Your task to perform on an android device: open app "Indeed Job Search" (install if not already installed) Image 0: 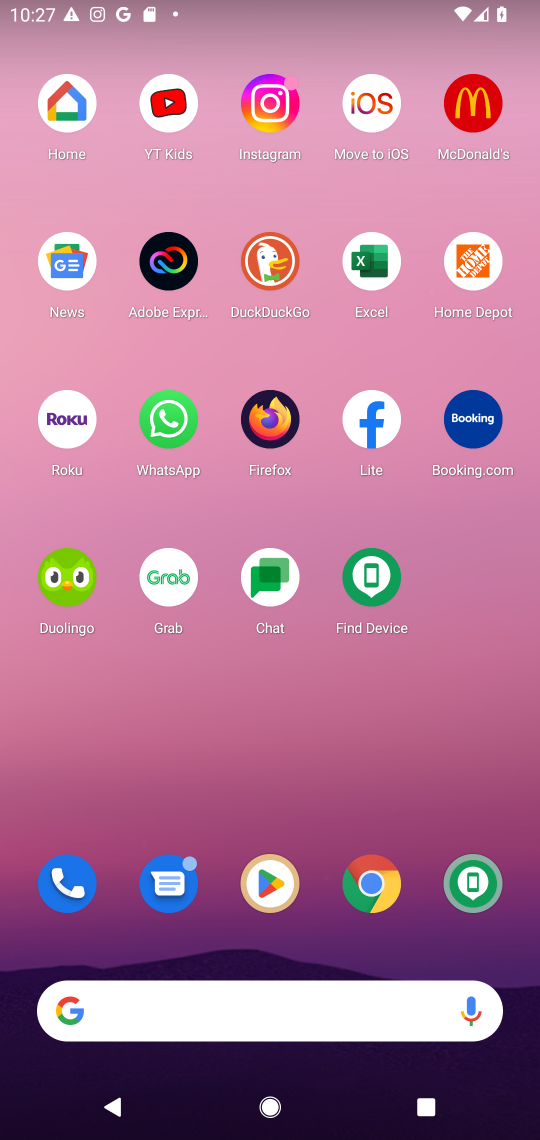
Step 0: press home button
Your task to perform on an android device: open app "Indeed Job Search" (install if not already installed) Image 1: 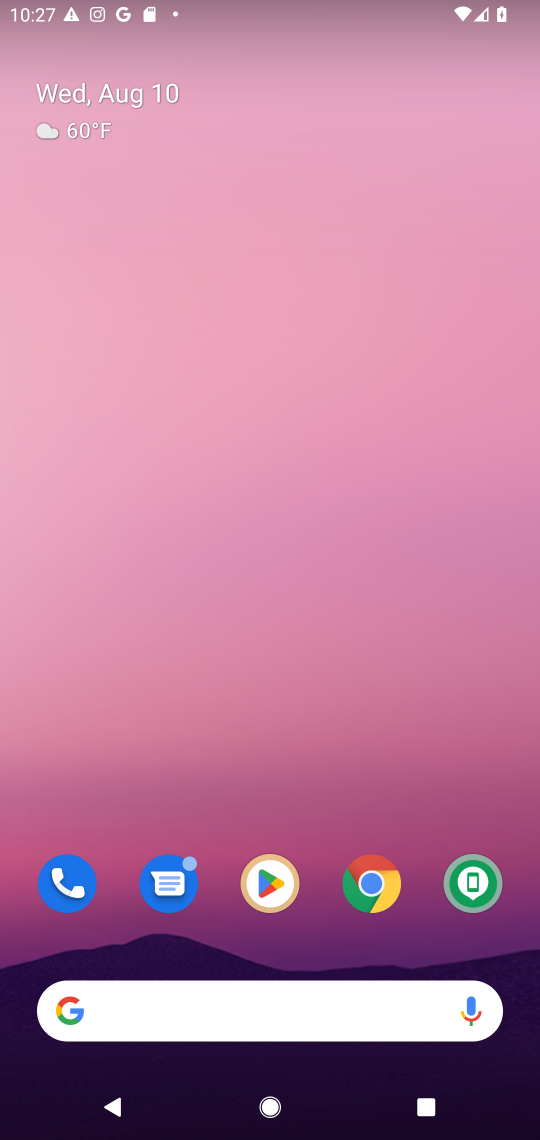
Step 1: drag from (431, 806) to (416, 2)
Your task to perform on an android device: open app "Indeed Job Search" (install if not already installed) Image 2: 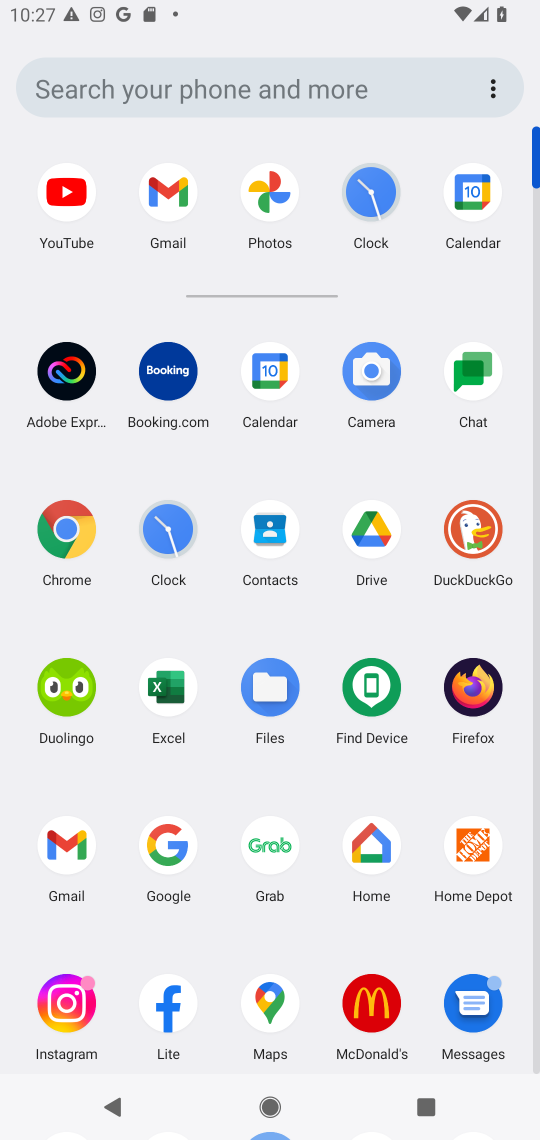
Step 2: drag from (514, 947) to (535, 427)
Your task to perform on an android device: open app "Indeed Job Search" (install if not already installed) Image 3: 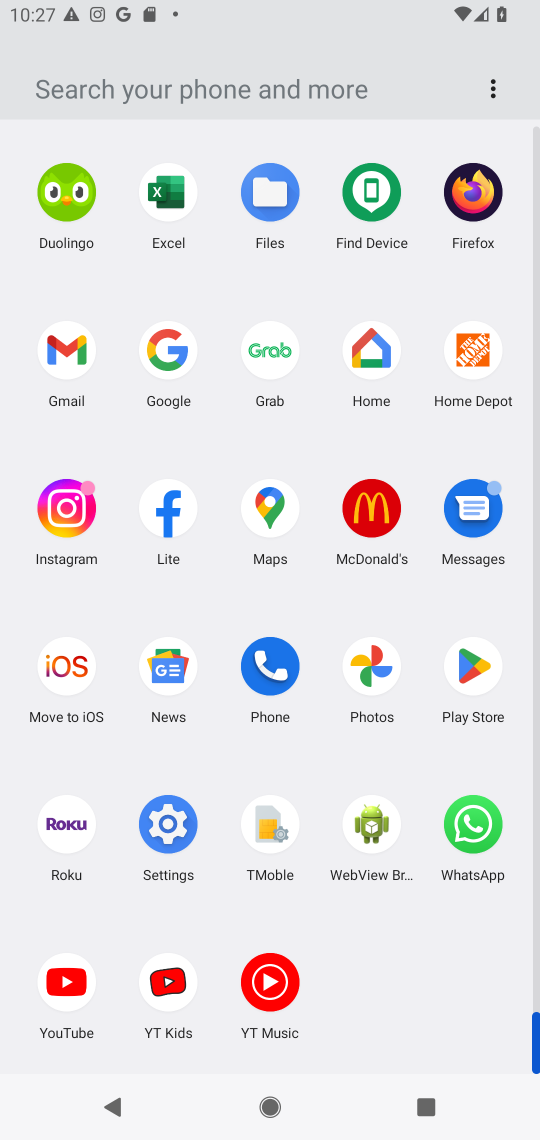
Step 3: click (468, 663)
Your task to perform on an android device: open app "Indeed Job Search" (install if not already installed) Image 4: 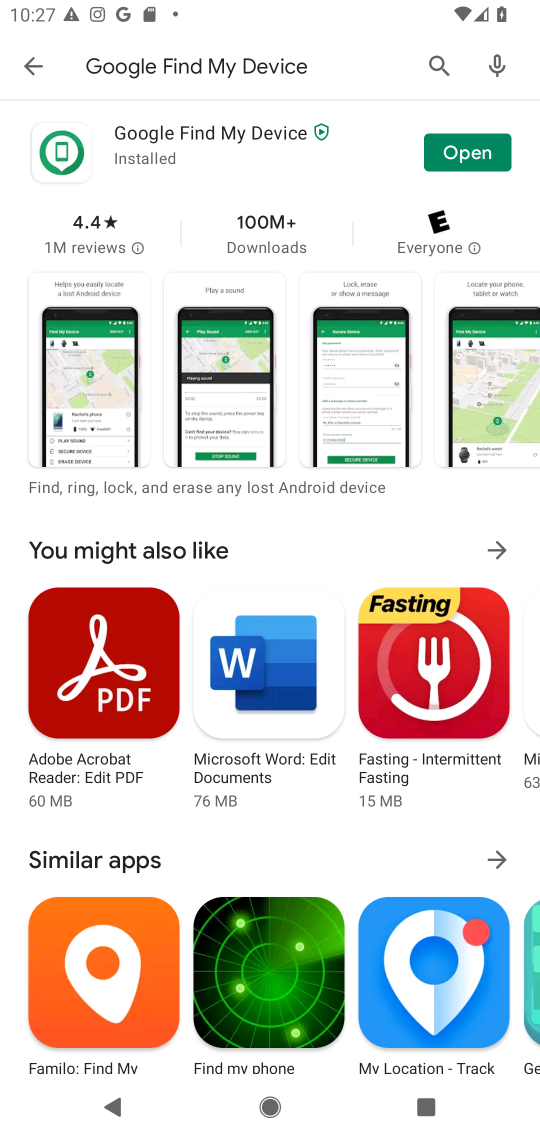
Step 4: click (430, 65)
Your task to perform on an android device: open app "Indeed Job Search" (install if not already installed) Image 5: 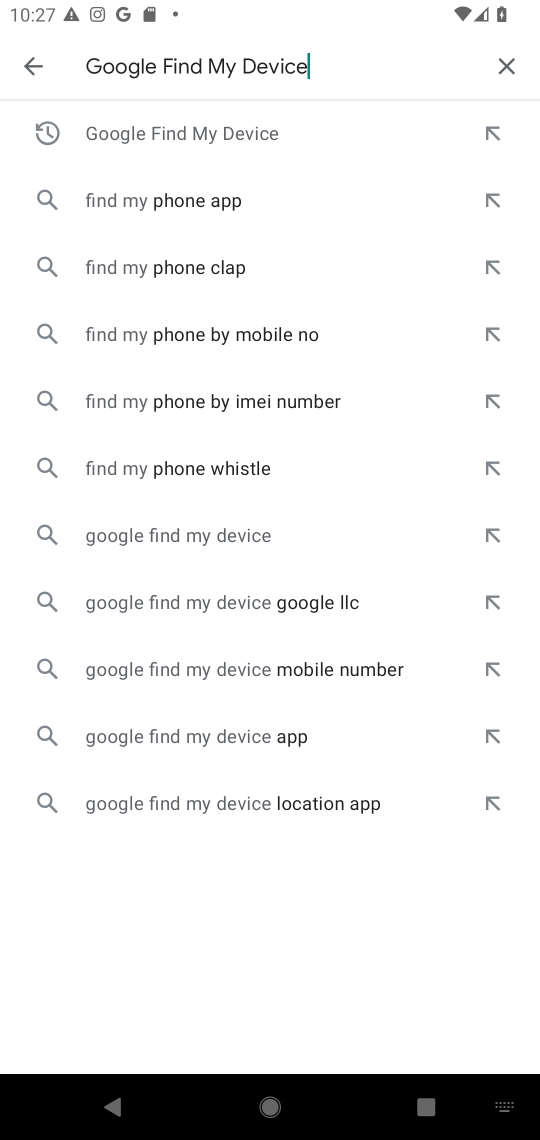
Step 5: click (503, 59)
Your task to perform on an android device: open app "Indeed Job Search" (install if not already installed) Image 6: 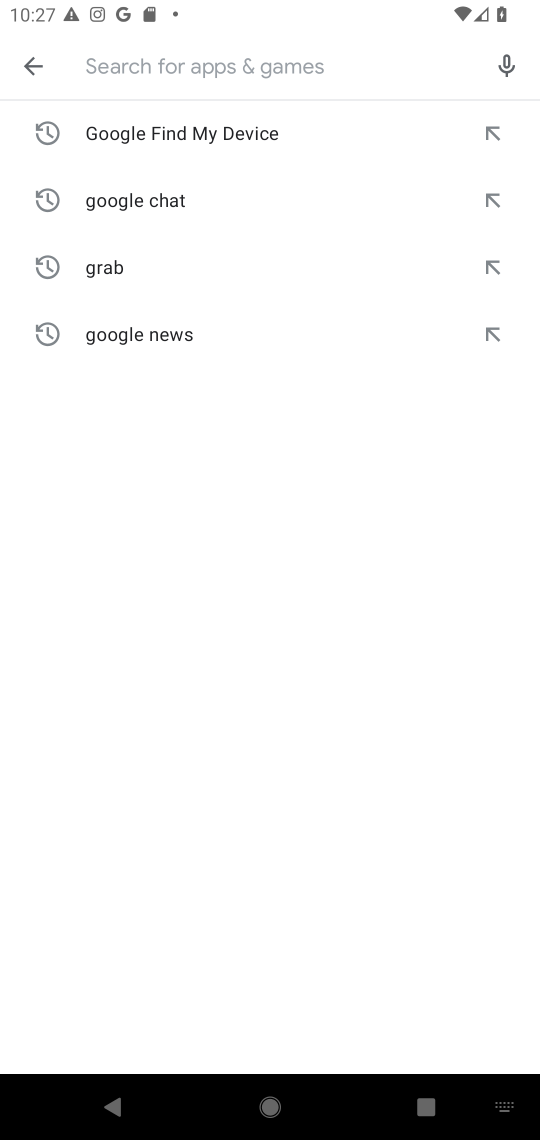
Step 6: press enter
Your task to perform on an android device: open app "Indeed Job Search" (install if not already installed) Image 7: 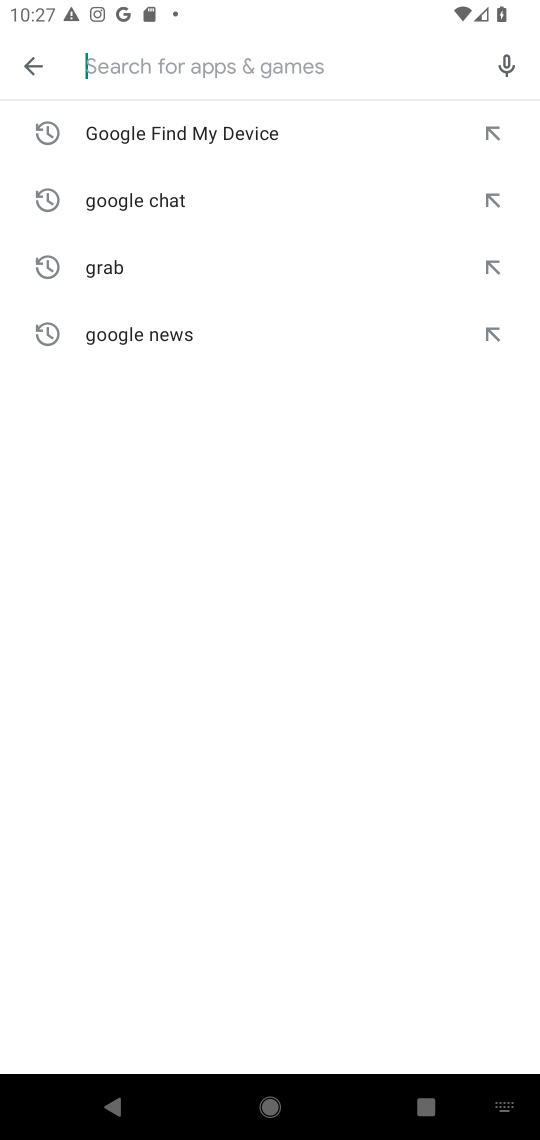
Step 7: type "indeed job search"
Your task to perform on an android device: open app "Indeed Job Search" (install if not already installed) Image 8: 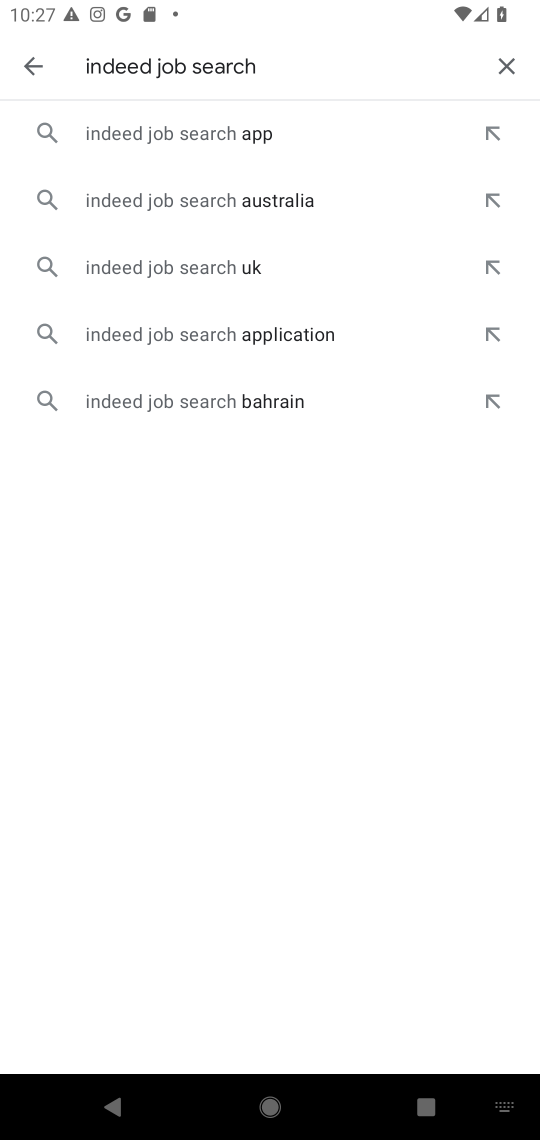
Step 8: click (257, 125)
Your task to perform on an android device: open app "Indeed Job Search" (install if not already installed) Image 9: 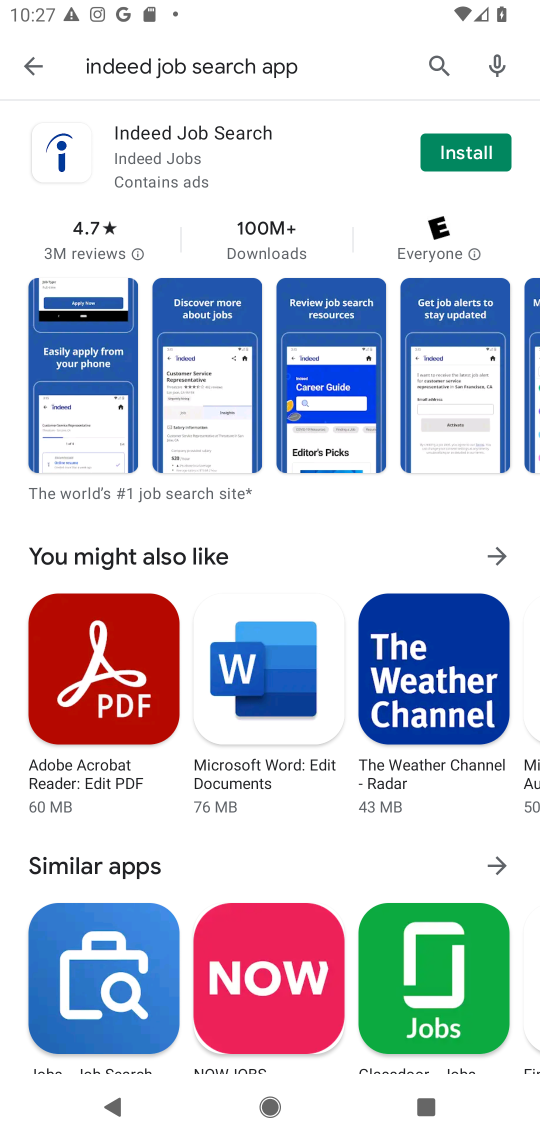
Step 9: click (466, 148)
Your task to perform on an android device: open app "Indeed Job Search" (install if not already installed) Image 10: 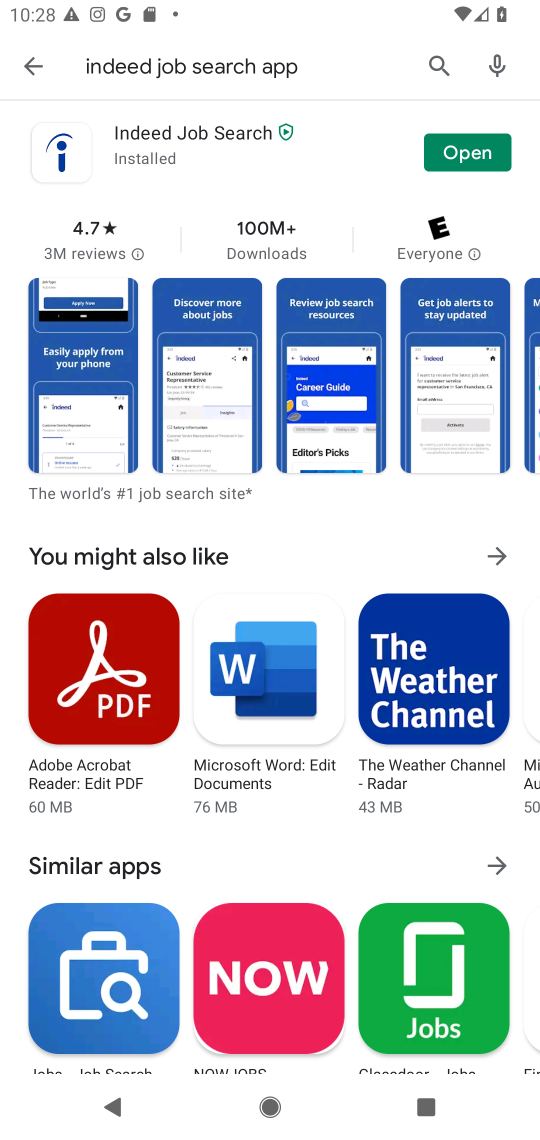
Step 10: click (473, 163)
Your task to perform on an android device: open app "Indeed Job Search" (install if not already installed) Image 11: 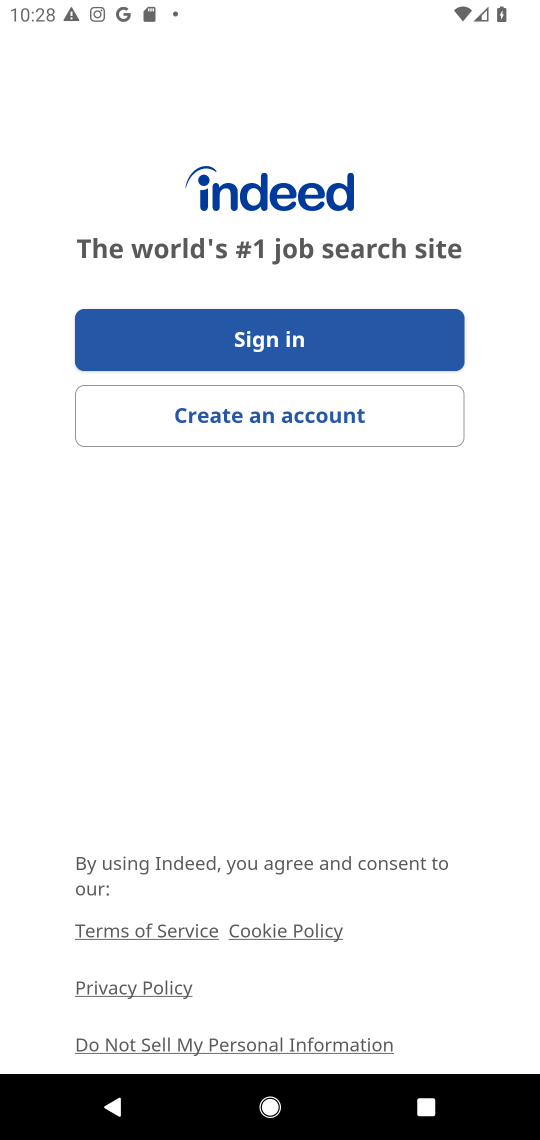
Step 11: task complete